Your task to perform on an android device: open app "Google Docs" Image 0: 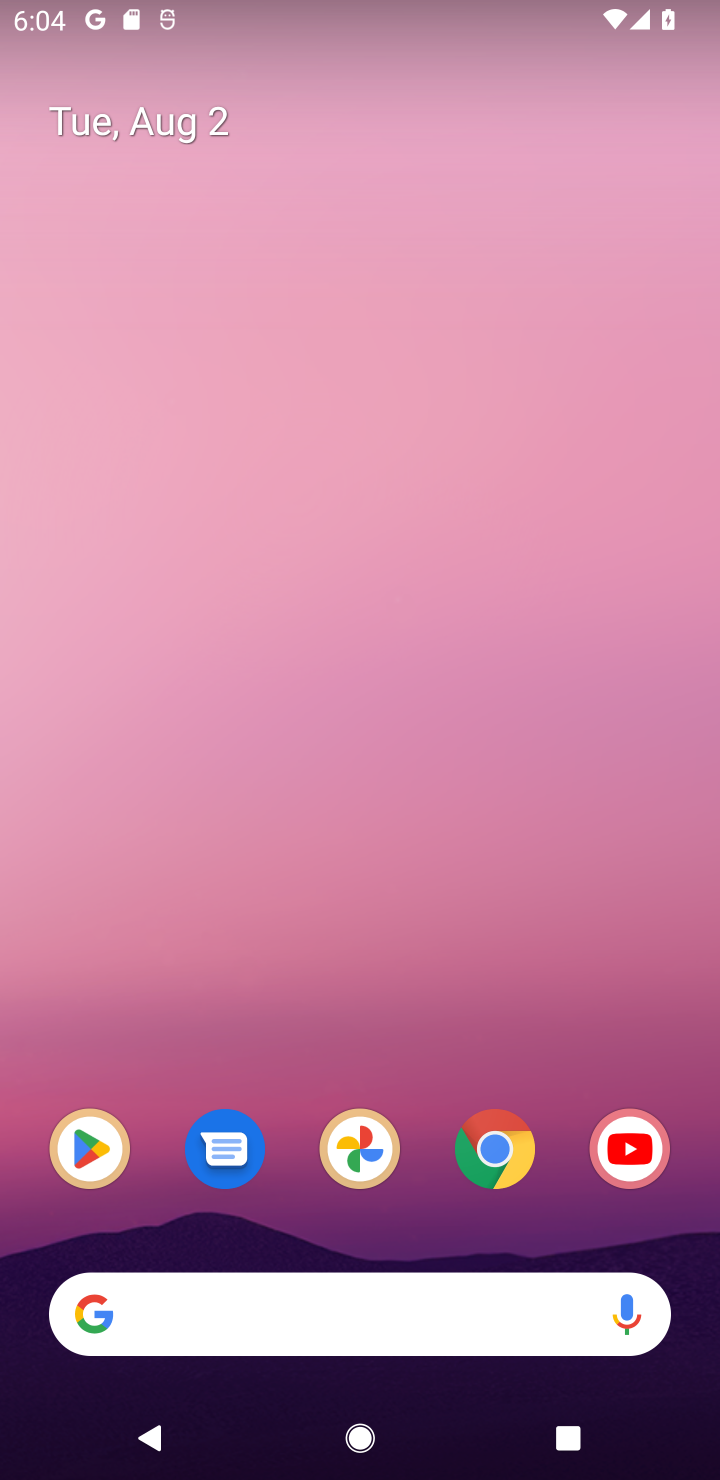
Step 0: drag from (423, 1262) to (348, 252)
Your task to perform on an android device: open app "Google Docs" Image 1: 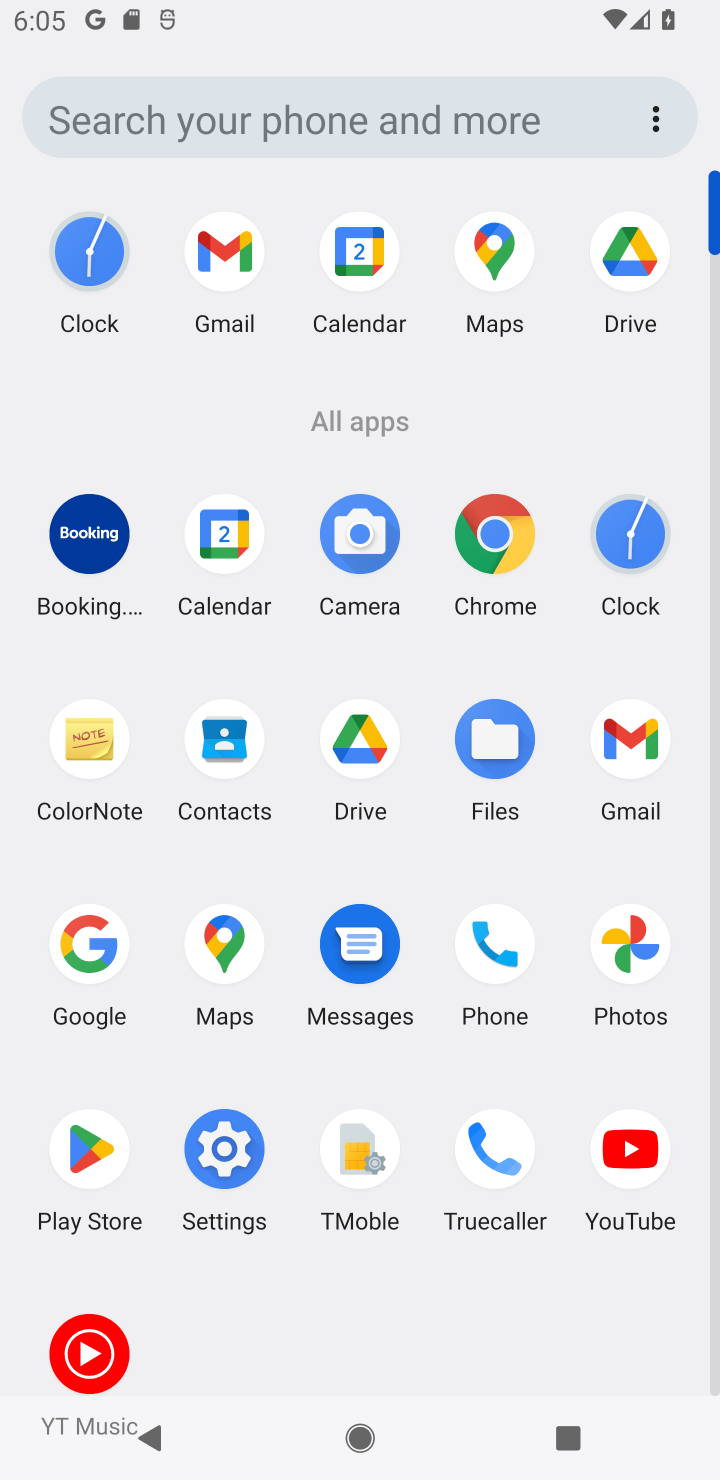
Step 1: click (72, 1168)
Your task to perform on an android device: open app "Google Docs" Image 2: 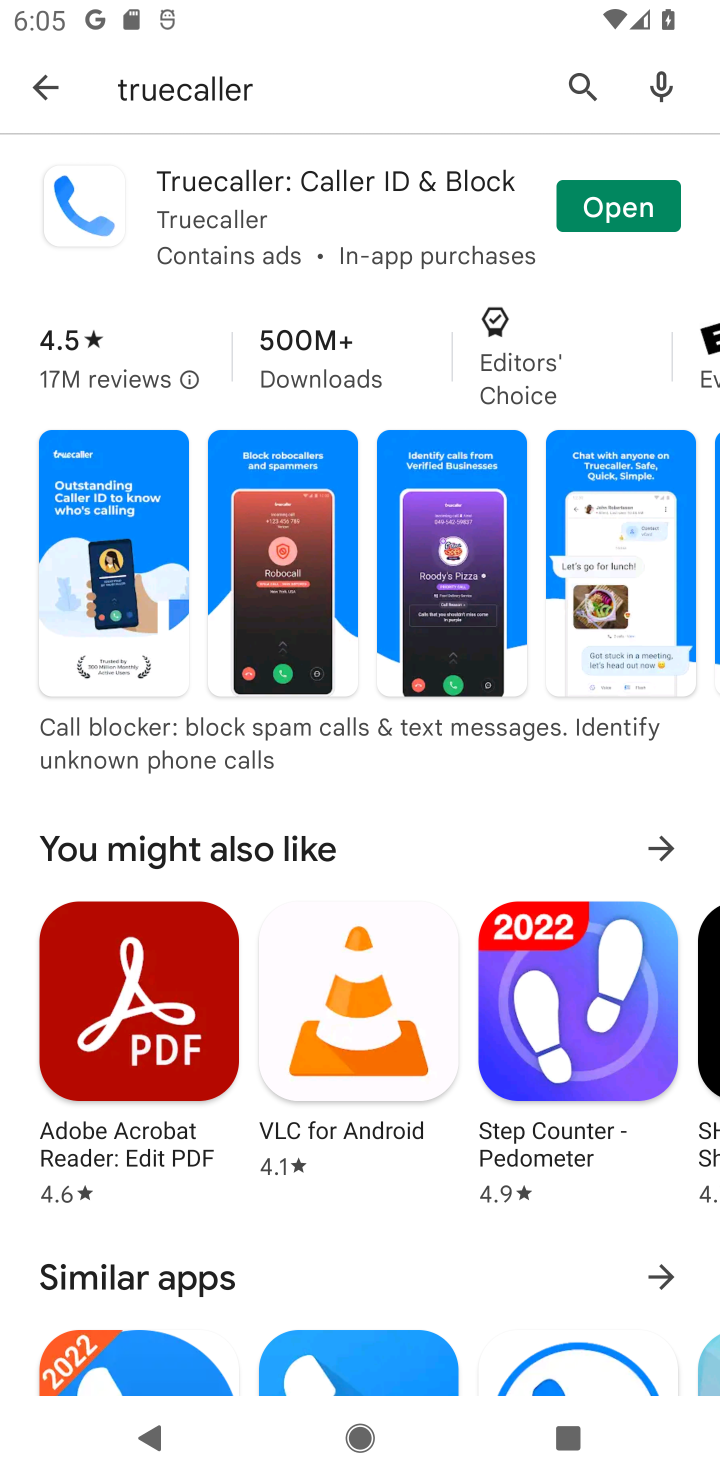
Step 2: click (57, 104)
Your task to perform on an android device: open app "Google Docs" Image 3: 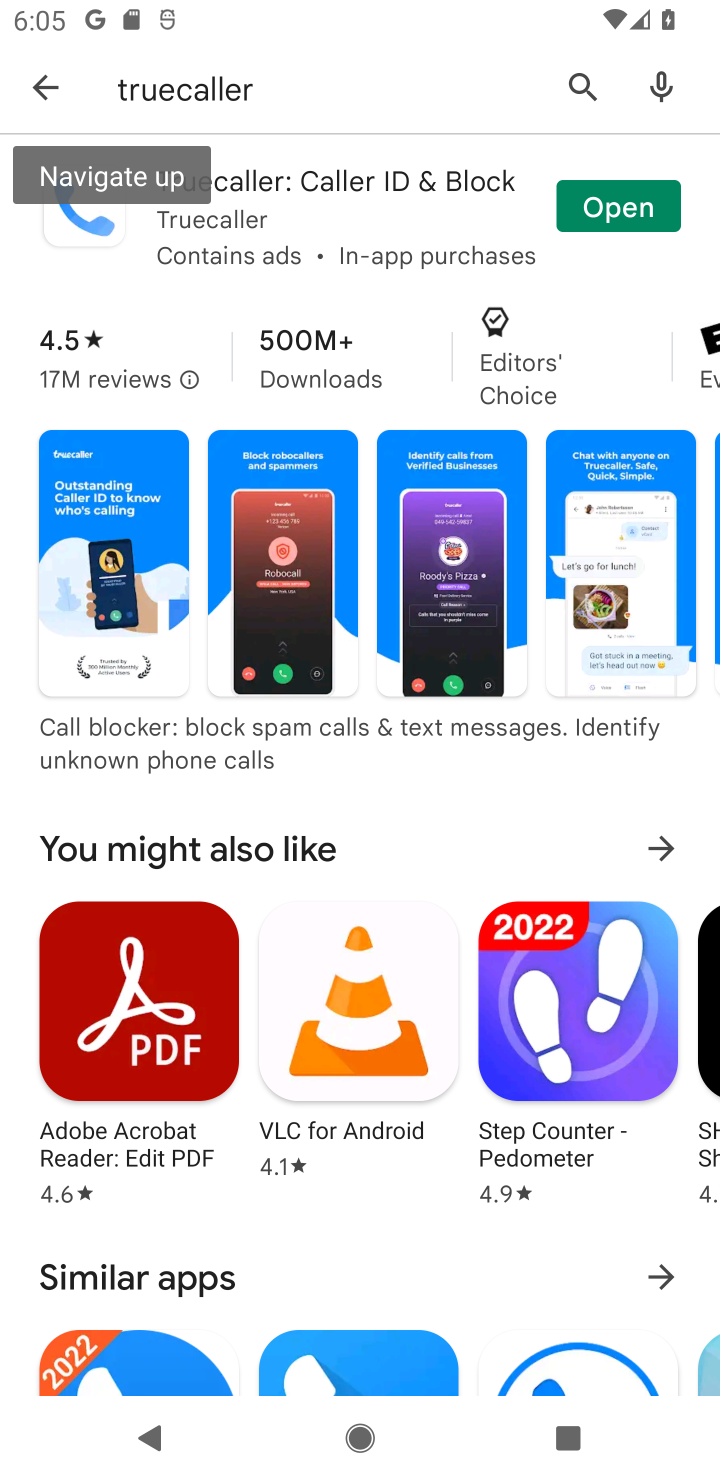
Step 3: click (59, 102)
Your task to perform on an android device: open app "Google Docs" Image 4: 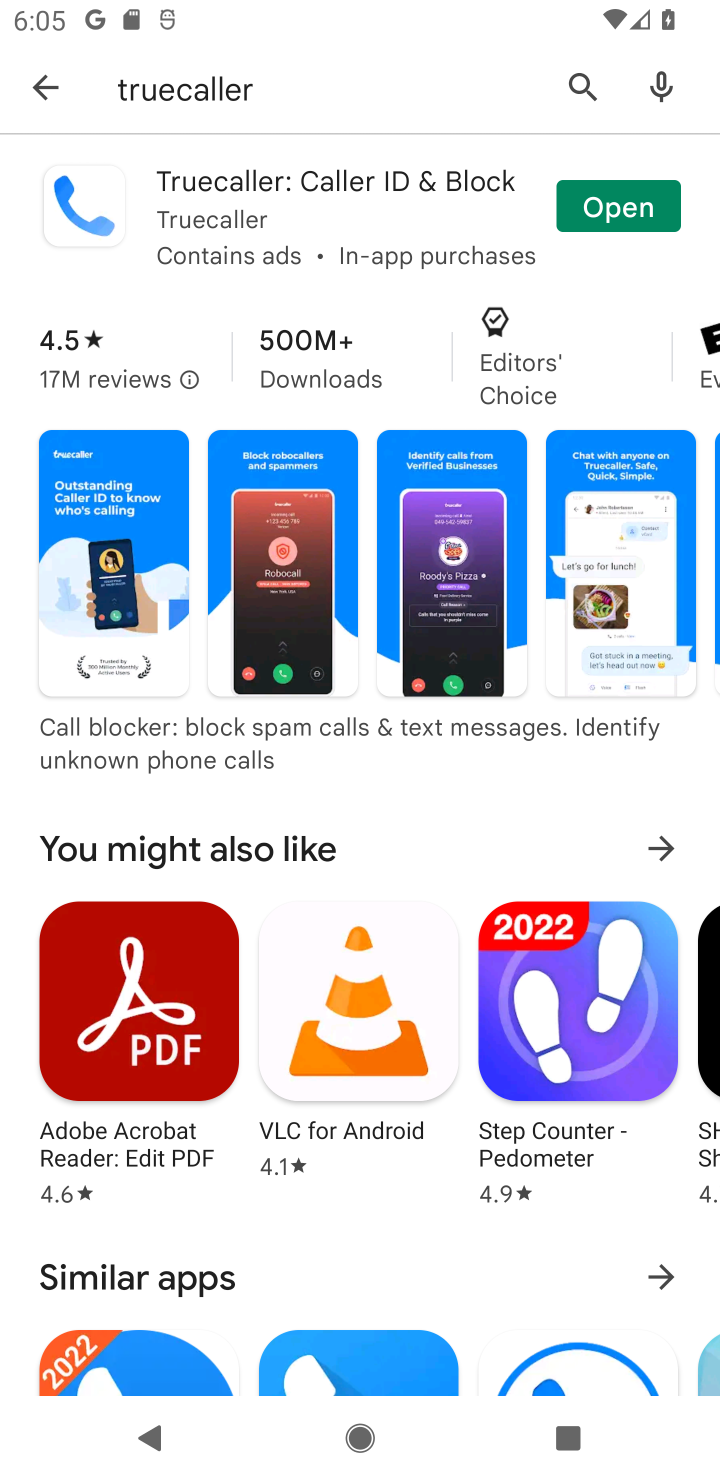
Step 4: click (28, 84)
Your task to perform on an android device: open app "Google Docs" Image 5: 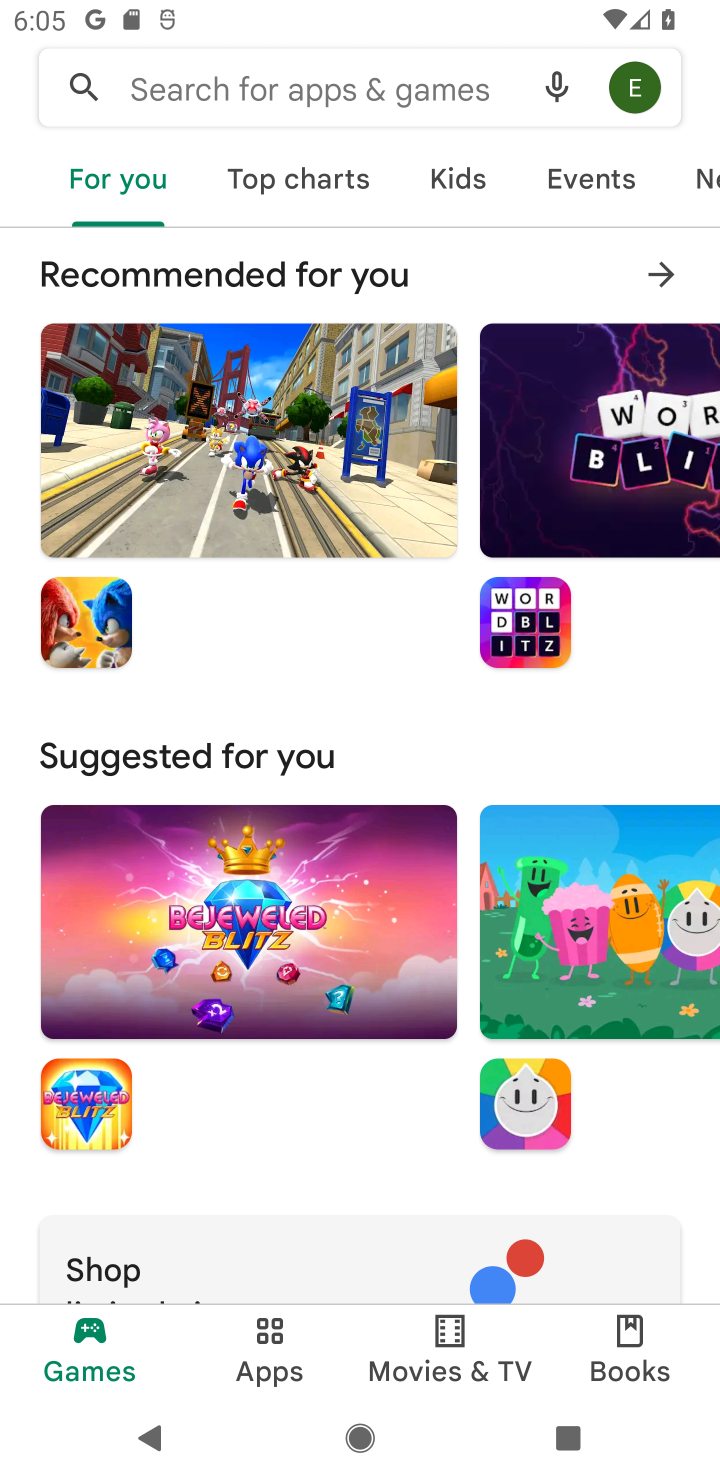
Step 5: click (32, 86)
Your task to perform on an android device: open app "Google Docs" Image 6: 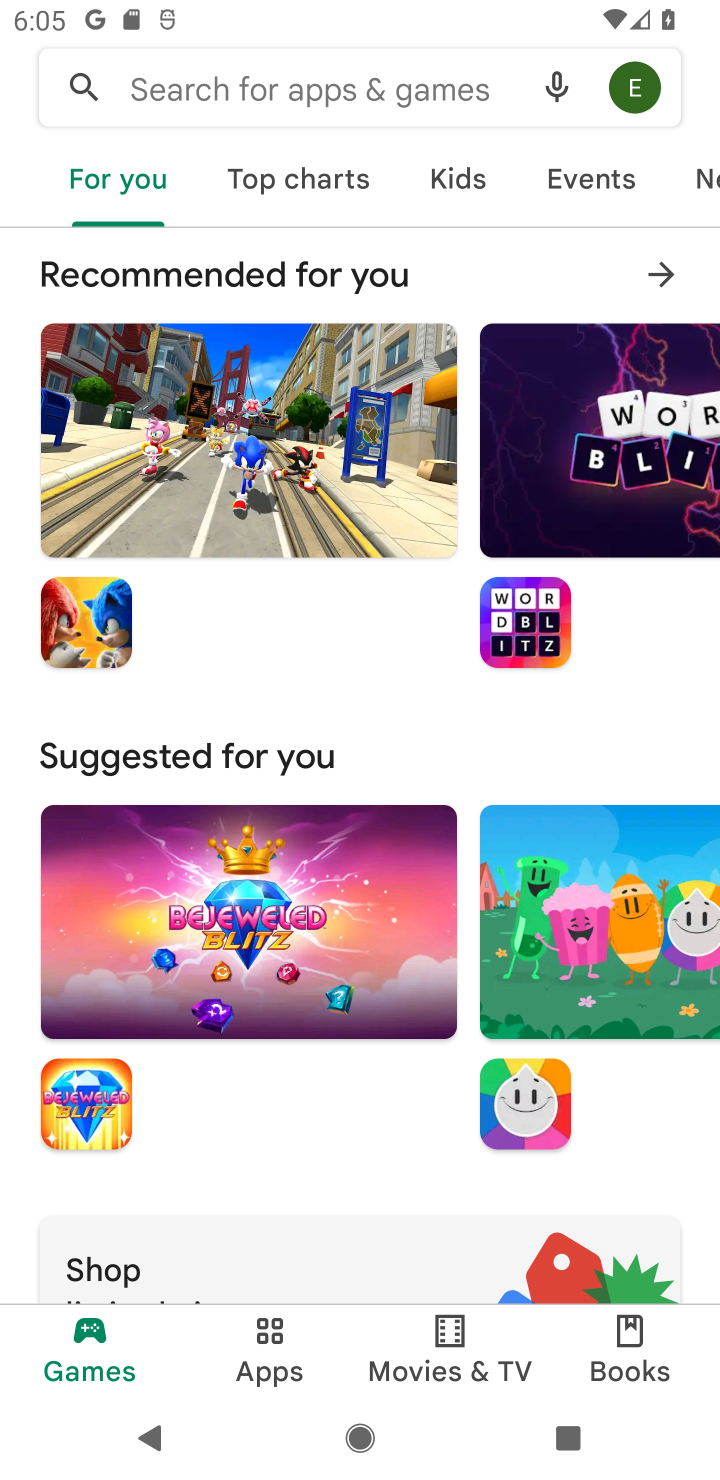
Step 6: click (160, 94)
Your task to perform on an android device: open app "Google Docs" Image 7: 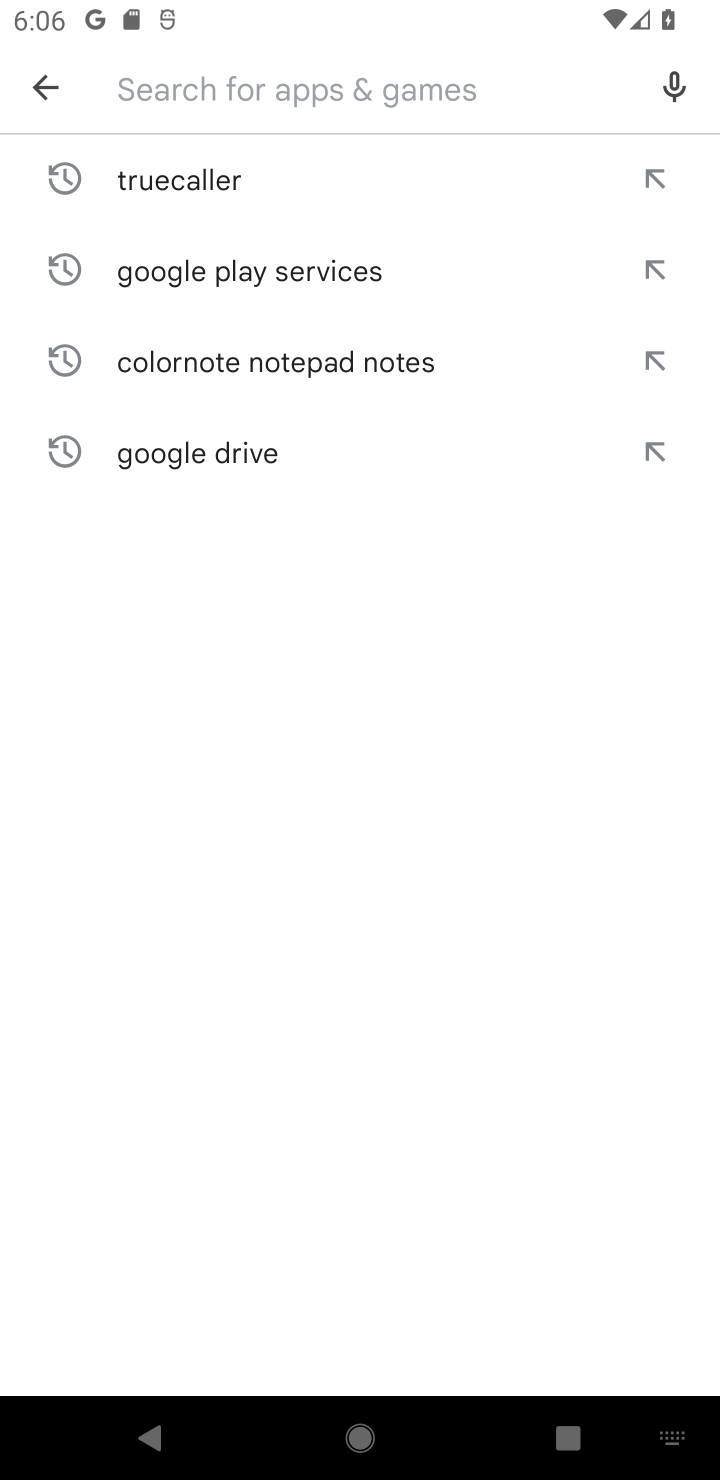
Step 7: type "Google Docs"
Your task to perform on an android device: open app "Google Docs" Image 8: 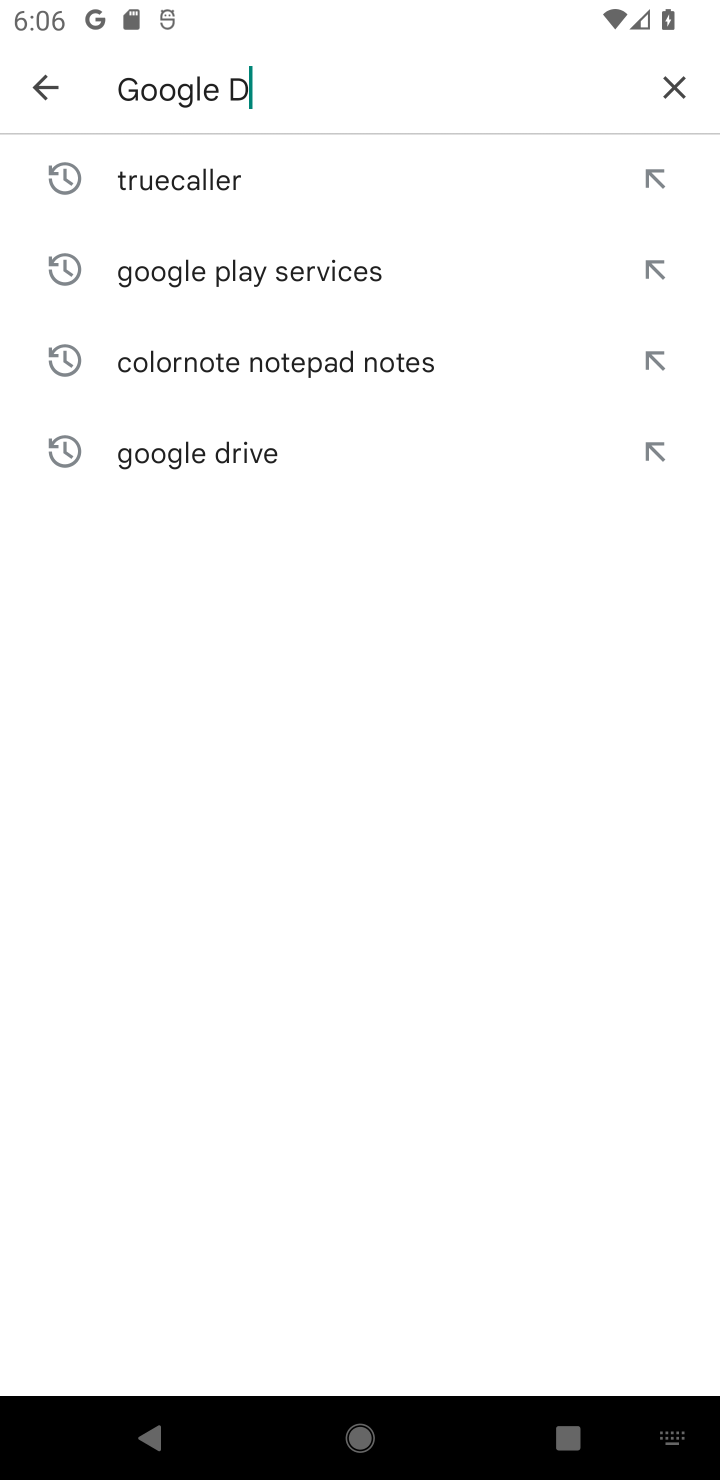
Step 8: type ""
Your task to perform on an android device: open app "Google Docs" Image 9: 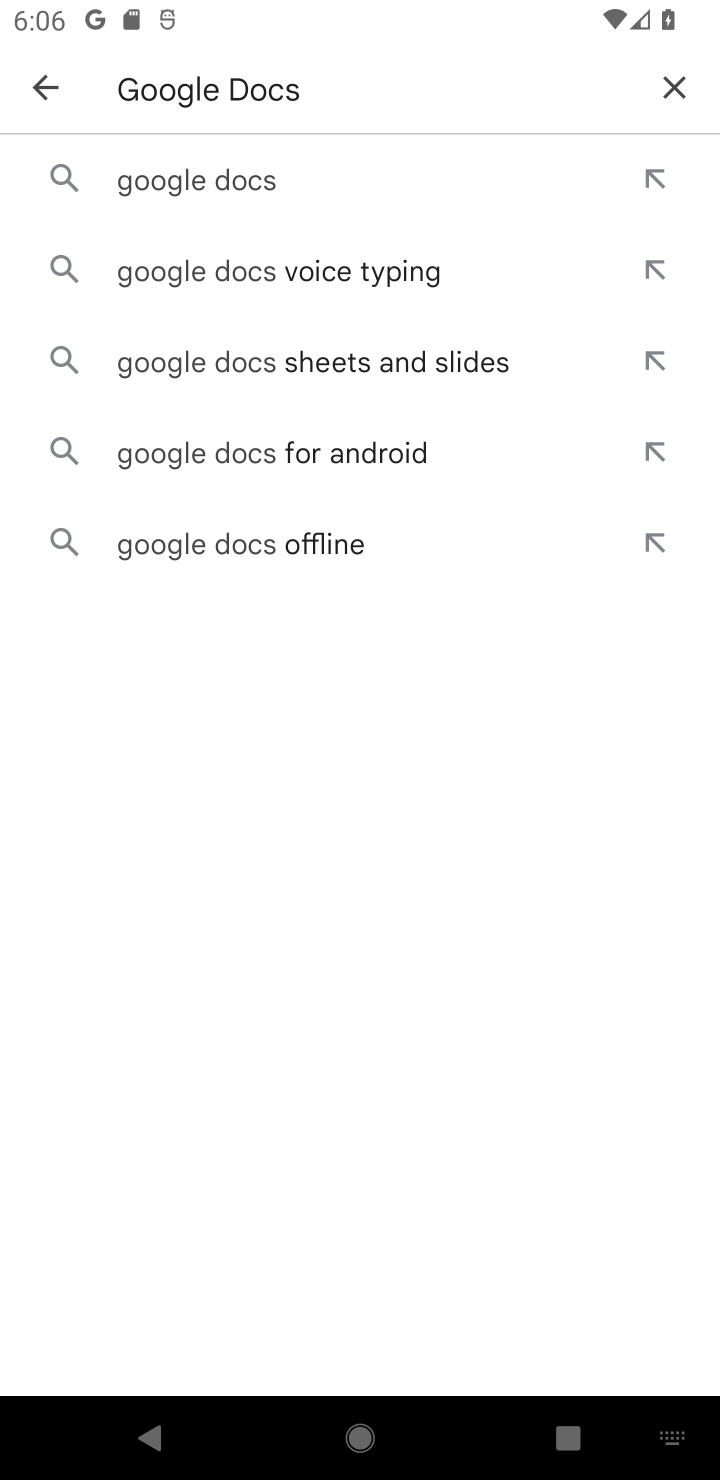
Step 9: click (289, 191)
Your task to perform on an android device: open app "Google Docs" Image 10: 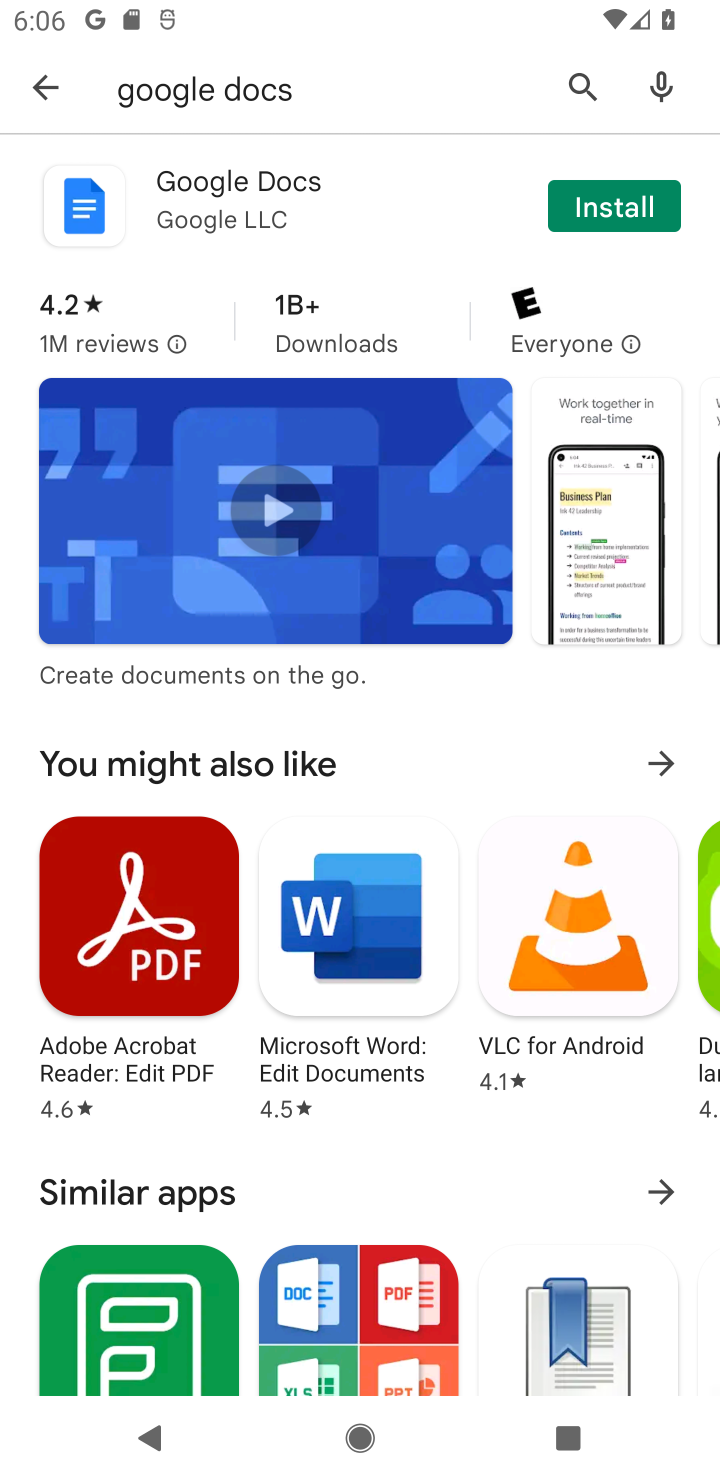
Step 10: click (613, 236)
Your task to perform on an android device: open app "Google Docs" Image 11: 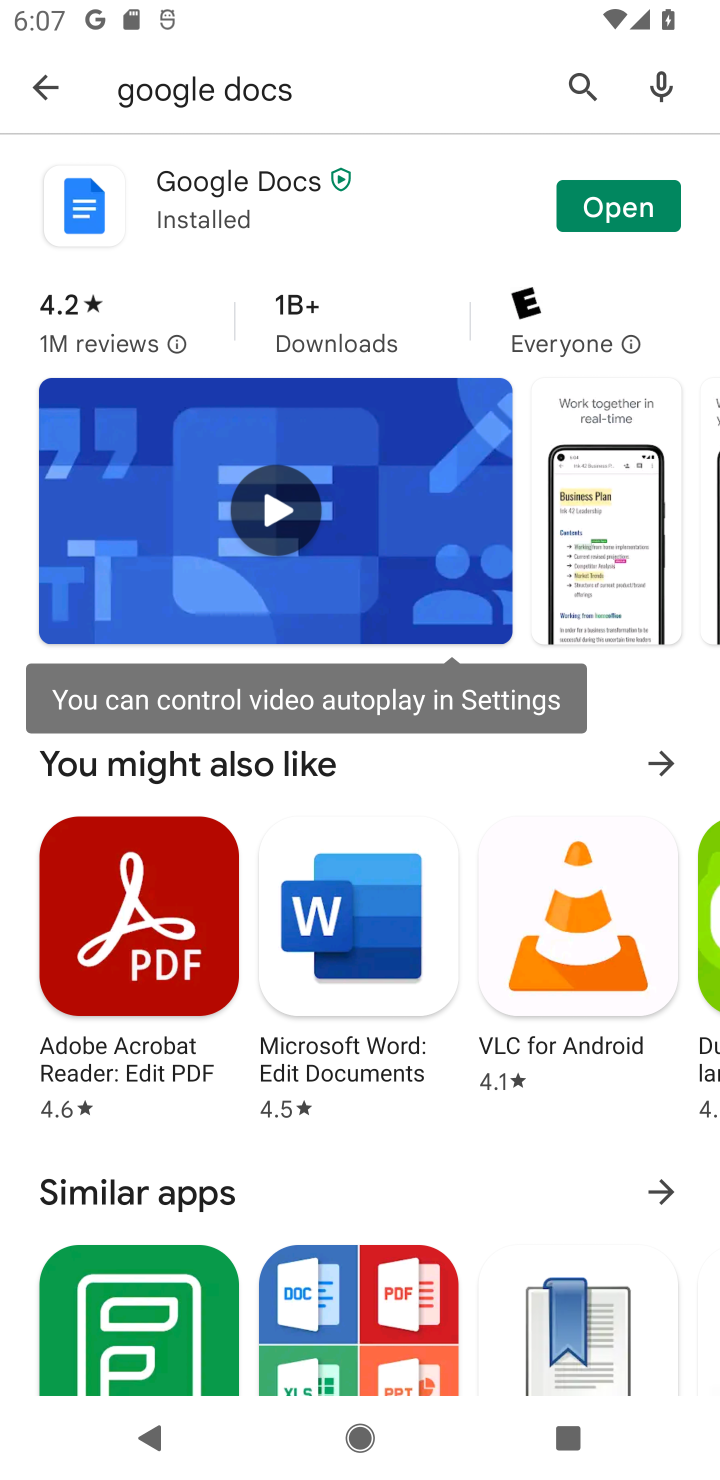
Step 11: click (618, 202)
Your task to perform on an android device: open app "Google Docs" Image 12: 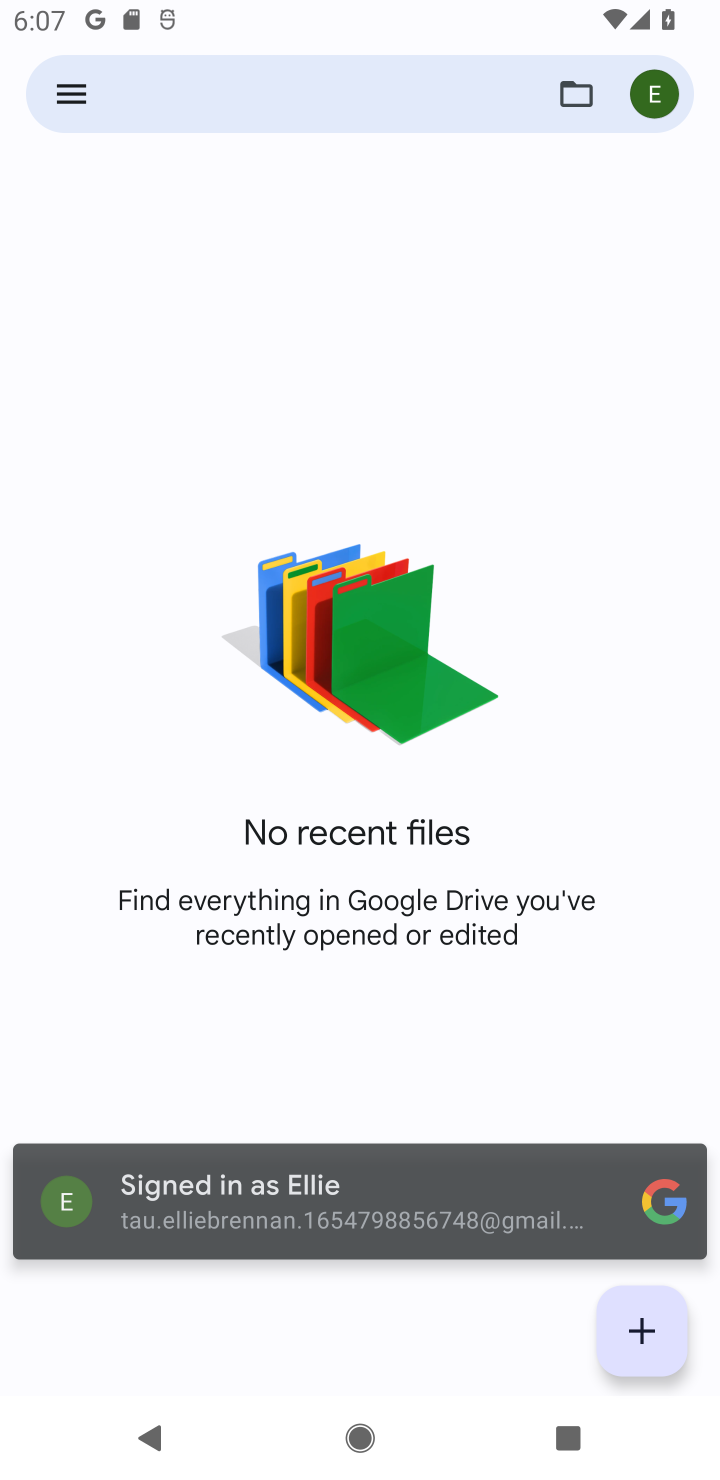
Step 12: task complete